Your task to perform on an android device: When is my next meeting? Image 0: 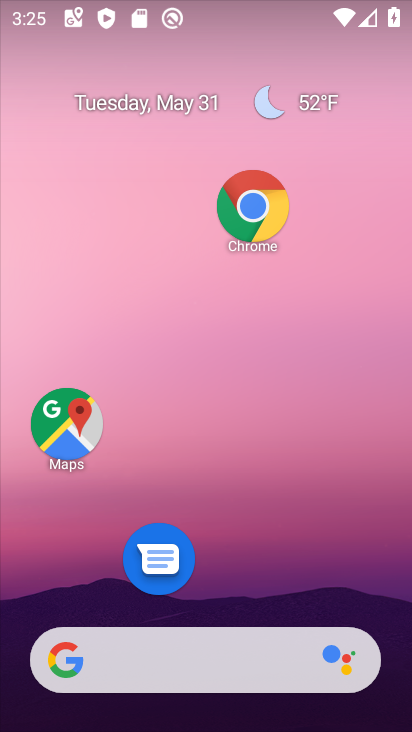
Step 0: drag from (233, 583) to (209, 108)
Your task to perform on an android device: When is my next meeting? Image 1: 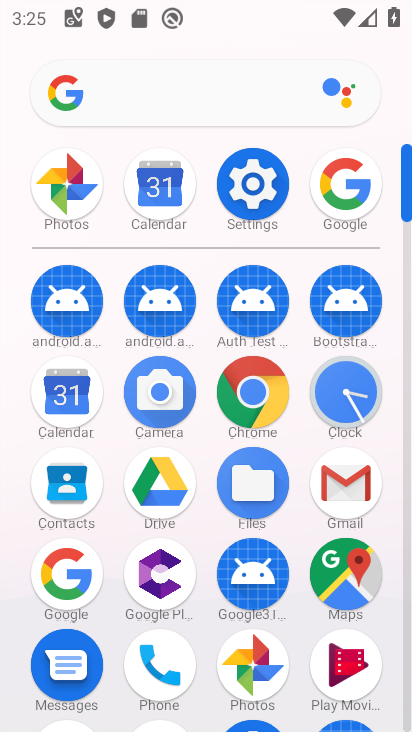
Step 1: click (142, 192)
Your task to perform on an android device: When is my next meeting? Image 2: 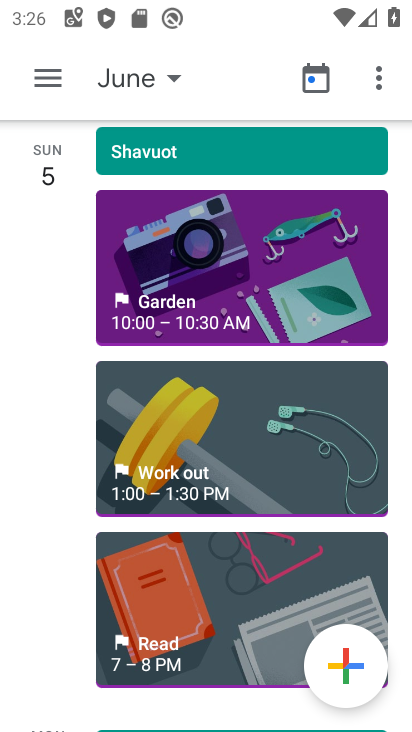
Step 2: drag from (210, 654) to (276, 243)
Your task to perform on an android device: When is my next meeting? Image 3: 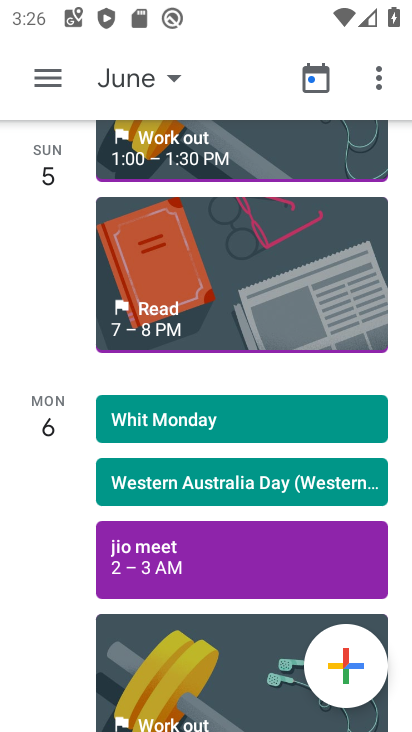
Step 3: drag from (228, 517) to (271, 280)
Your task to perform on an android device: When is my next meeting? Image 4: 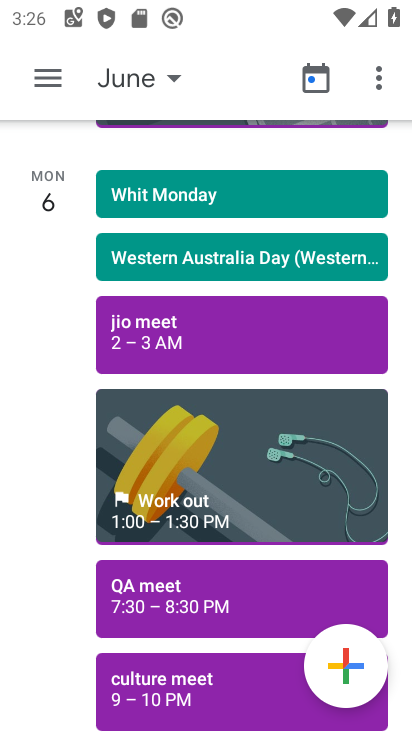
Step 4: drag from (228, 569) to (246, 316)
Your task to perform on an android device: When is my next meeting? Image 5: 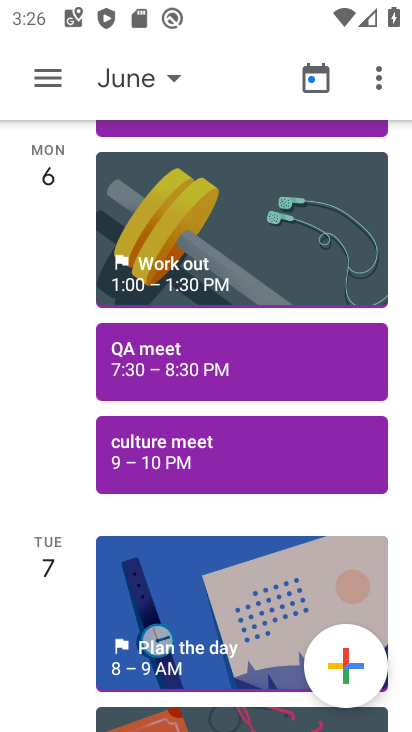
Step 5: drag from (175, 567) to (225, 327)
Your task to perform on an android device: When is my next meeting? Image 6: 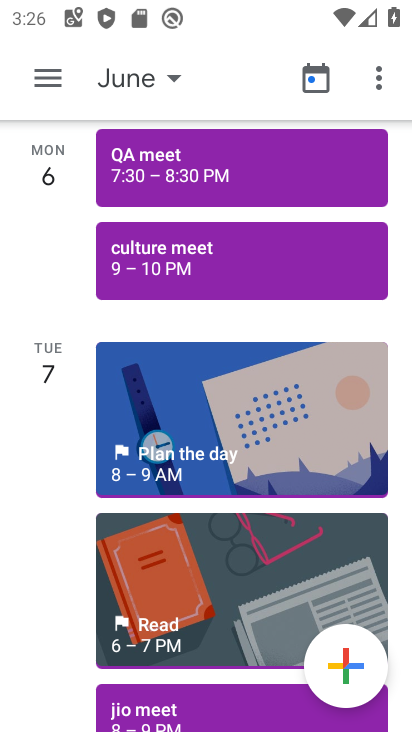
Step 6: drag from (137, 542) to (135, 368)
Your task to perform on an android device: When is my next meeting? Image 7: 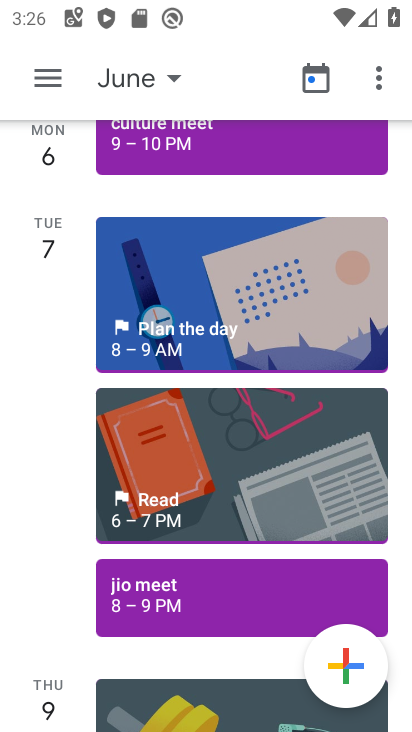
Step 7: drag from (269, 573) to (271, 302)
Your task to perform on an android device: When is my next meeting? Image 8: 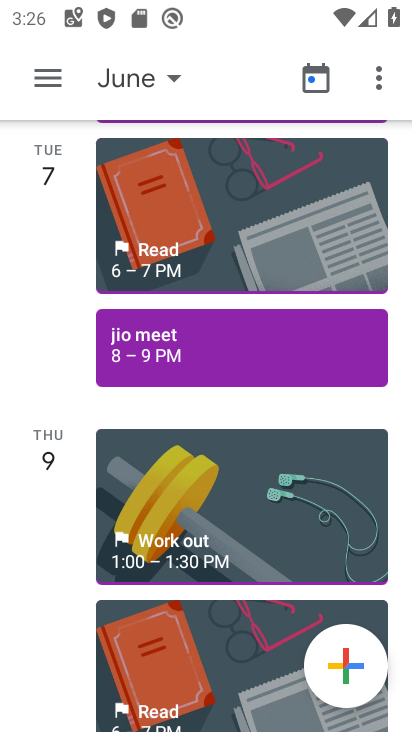
Step 8: click (239, 336)
Your task to perform on an android device: When is my next meeting? Image 9: 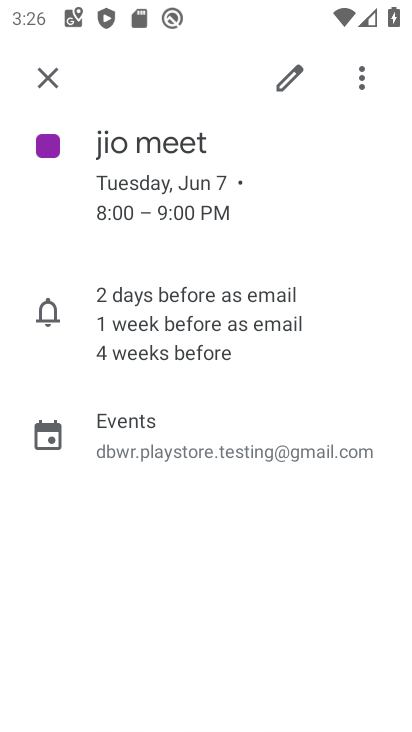
Step 9: task complete